Your task to perform on an android device: Search for "apple airpods pro" on newegg.com, select the first entry, and add it to the cart. Image 0: 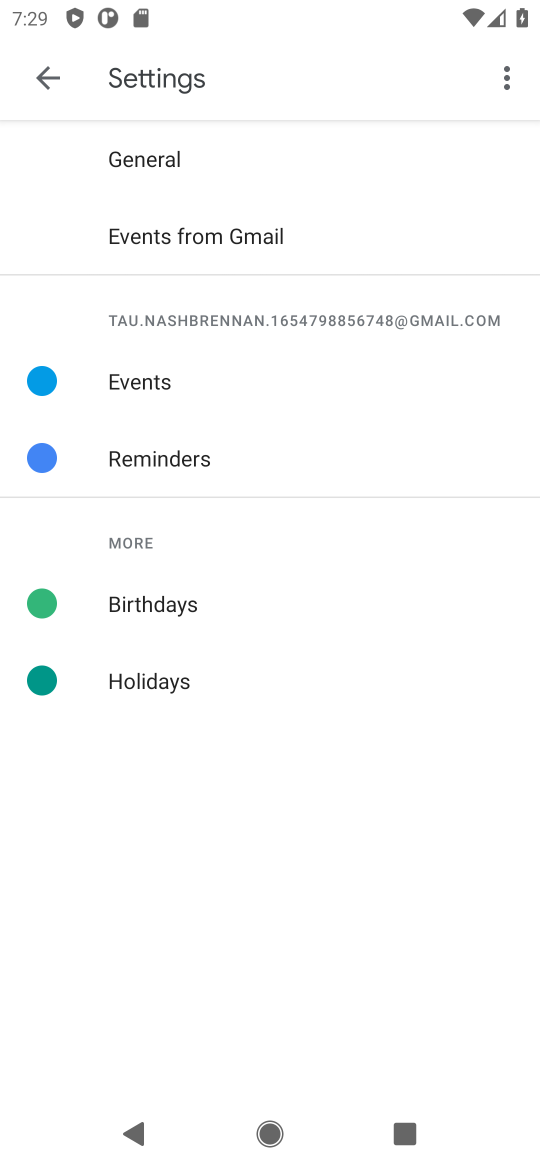
Step 0: press home button
Your task to perform on an android device: Search for "apple airpods pro" on newegg.com, select the first entry, and add it to the cart. Image 1: 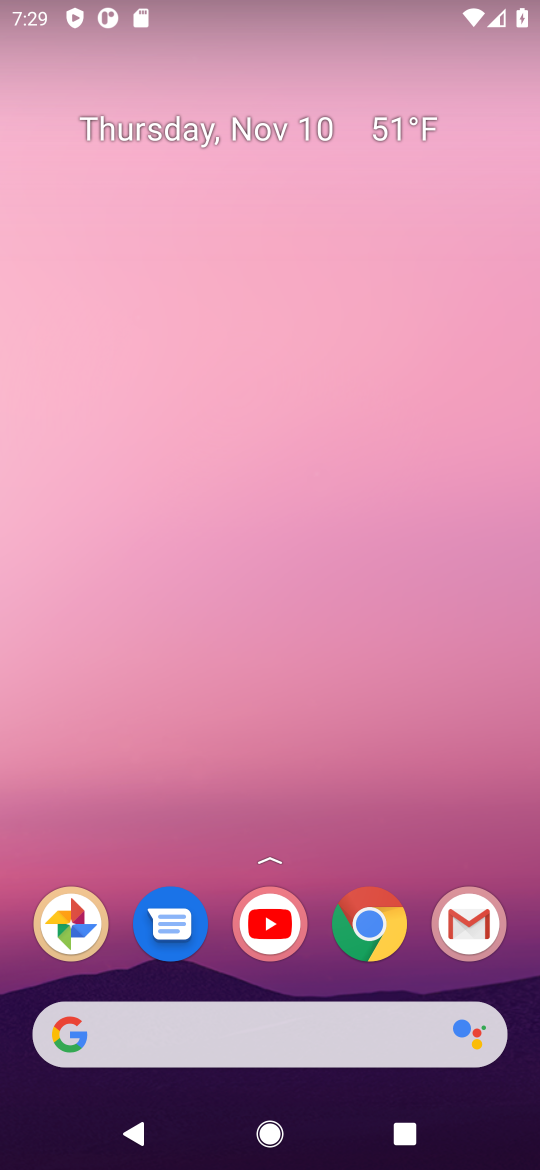
Step 1: click (368, 926)
Your task to perform on an android device: Search for "apple airpods pro" on newegg.com, select the first entry, and add it to the cart. Image 2: 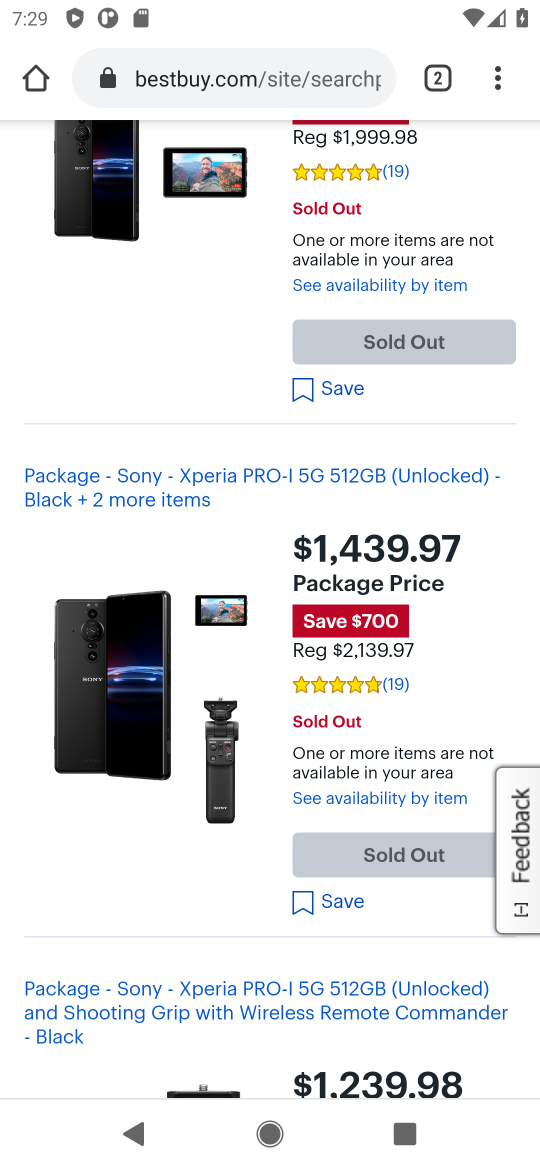
Step 2: click (191, 91)
Your task to perform on an android device: Search for "apple airpods pro" on newegg.com, select the first entry, and add it to the cart. Image 3: 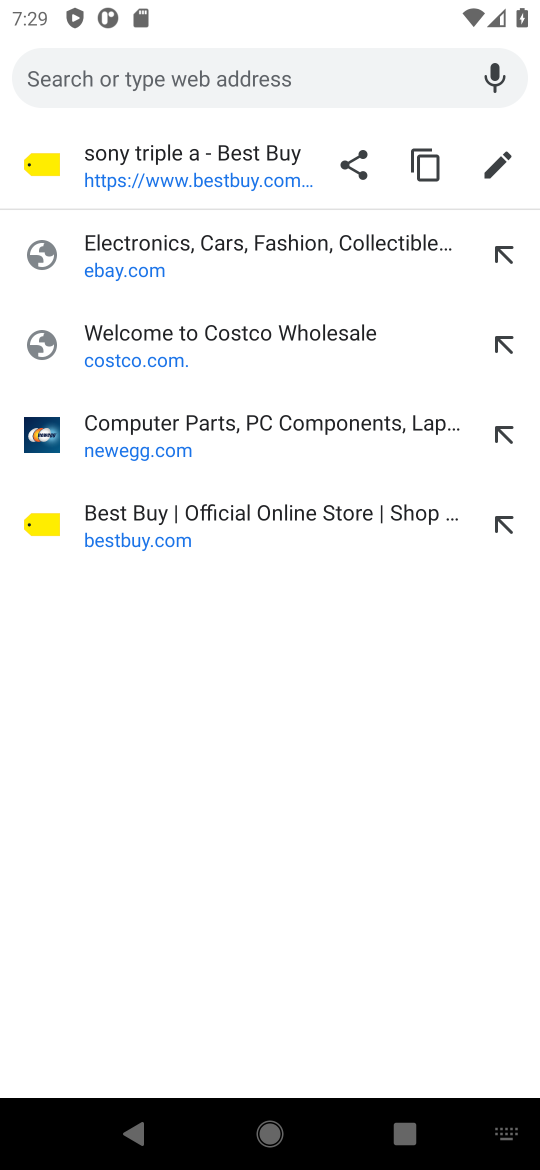
Step 3: click (123, 436)
Your task to perform on an android device: Search for "apple airpods pro" on newegg.com, select the first entry, and add it to the cart. Image 4: 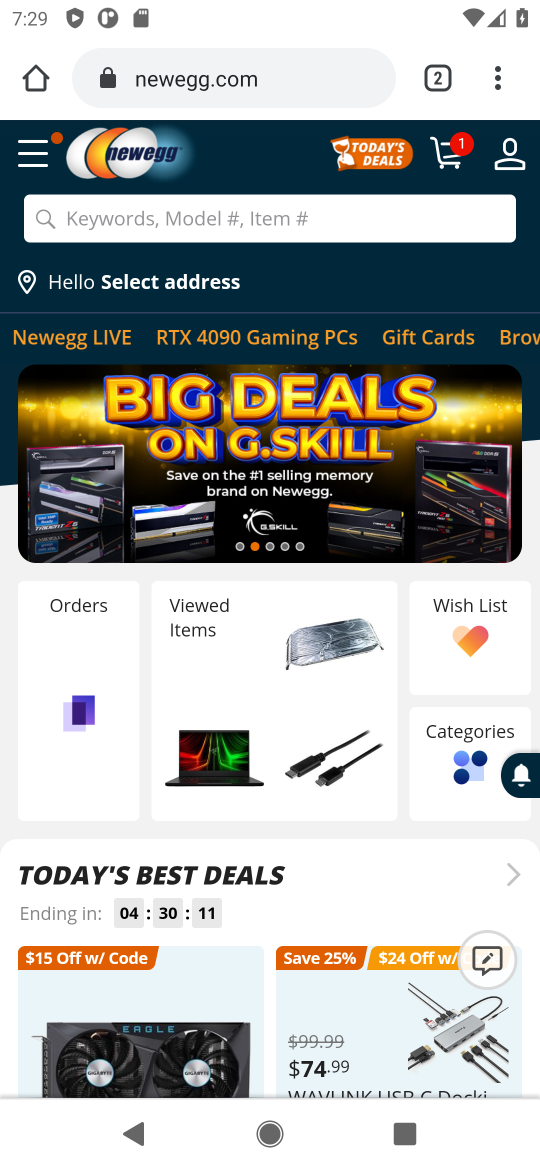
Step 4: click (122, 225)
Your task to perform on an android device: Search for "apple airpods pro" on newegg.com, select the first entry, and add it to the cart. Image 5: 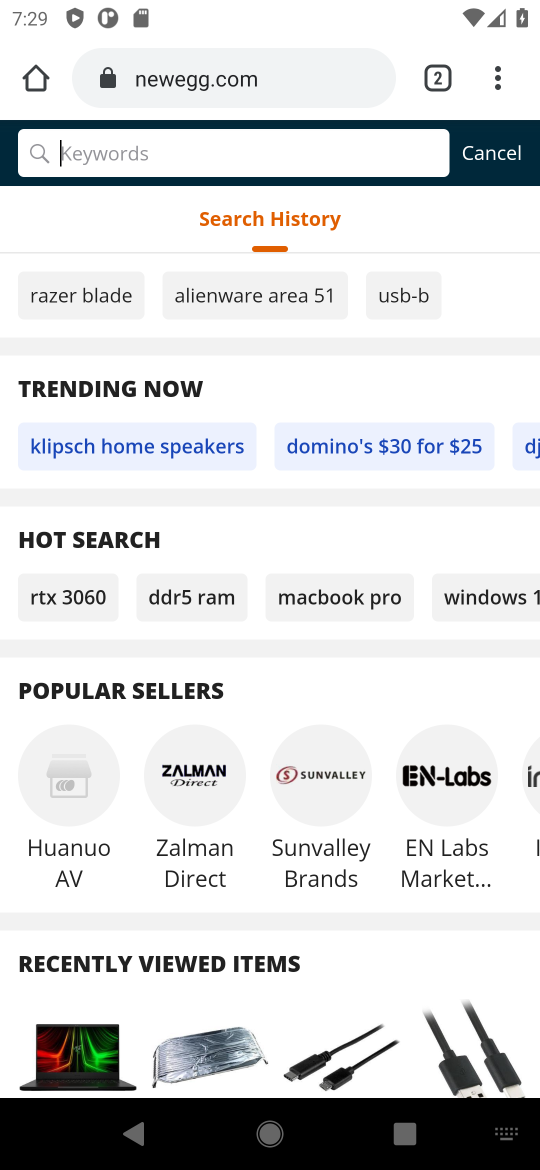
Step 5: type "apple airpods pro"
Your task to perform on an android device: Search for "apple airpods pro" on newegg.com, select the first entry, and add it to the cart. Image 6: 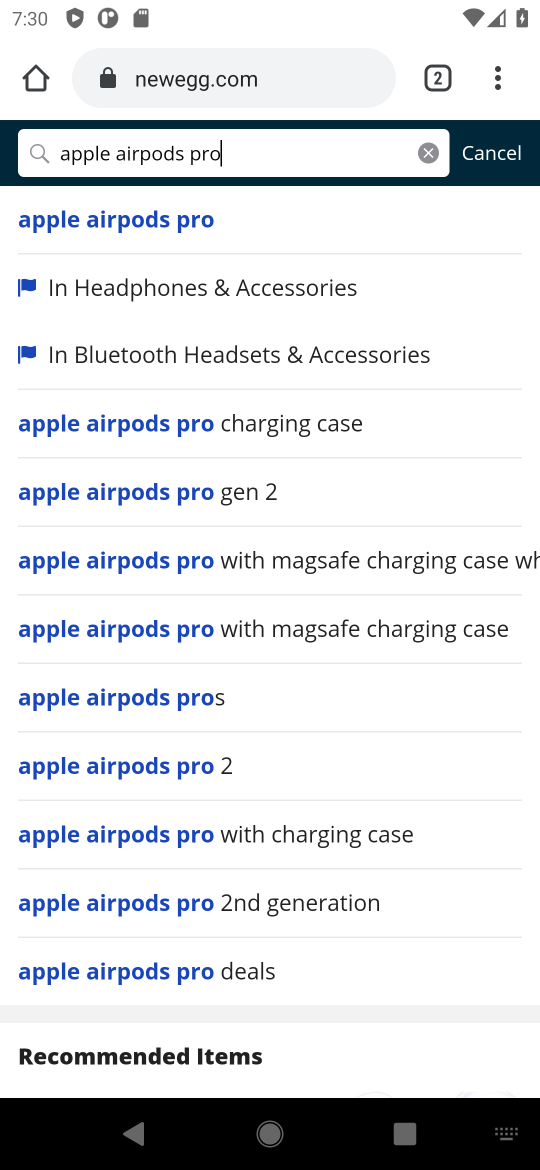
Step 6: click (163, 233)
Your task to perform on an android device: Search for "apple airpods pro" on newegg.com, select the first entry, and add it to the cart. Image 7: 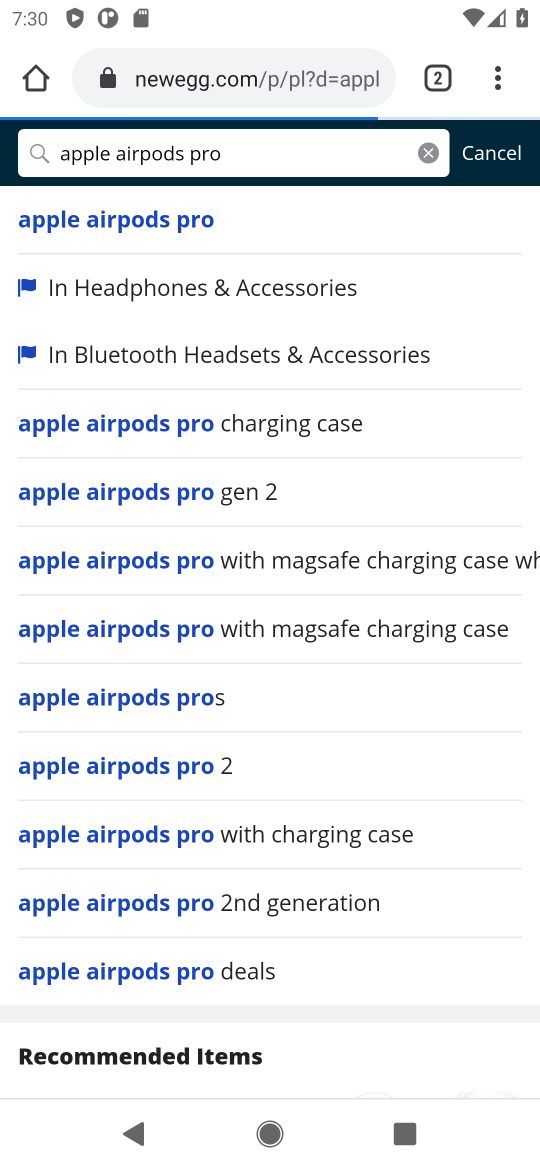
Step 7: click (131, 222)
Your task to perform on an android device: Search for "apple airpods pro" on newegg.com, select the first entry, and add it to the cart. Image 8: 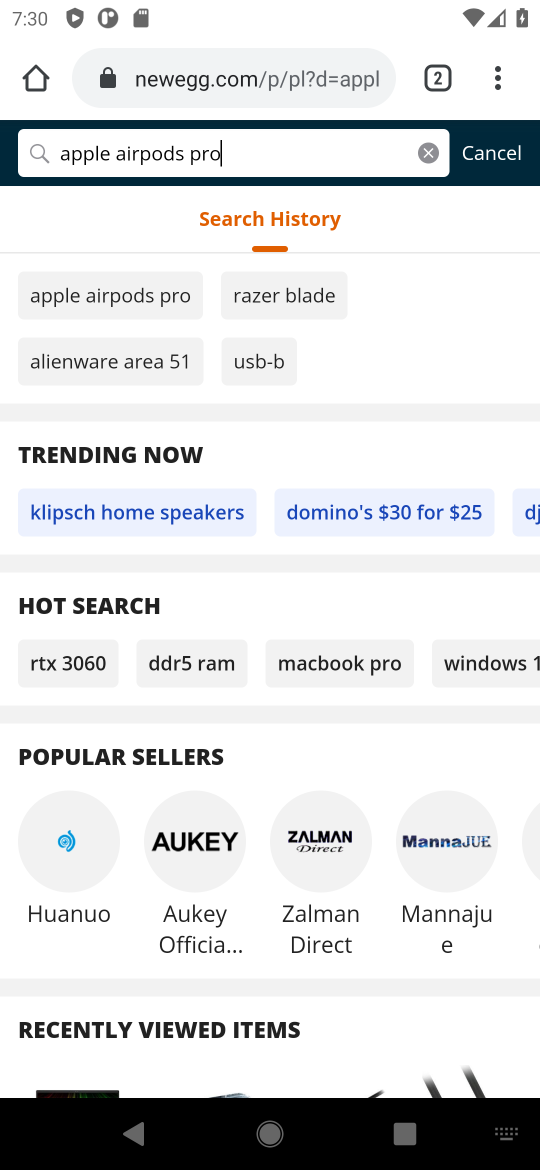
Step 8: click (67, 299)
Your task to perform on an android device: Search for "apple airpods pro" on newegg.com, select the first entry, and add it to the cart. Image 9: 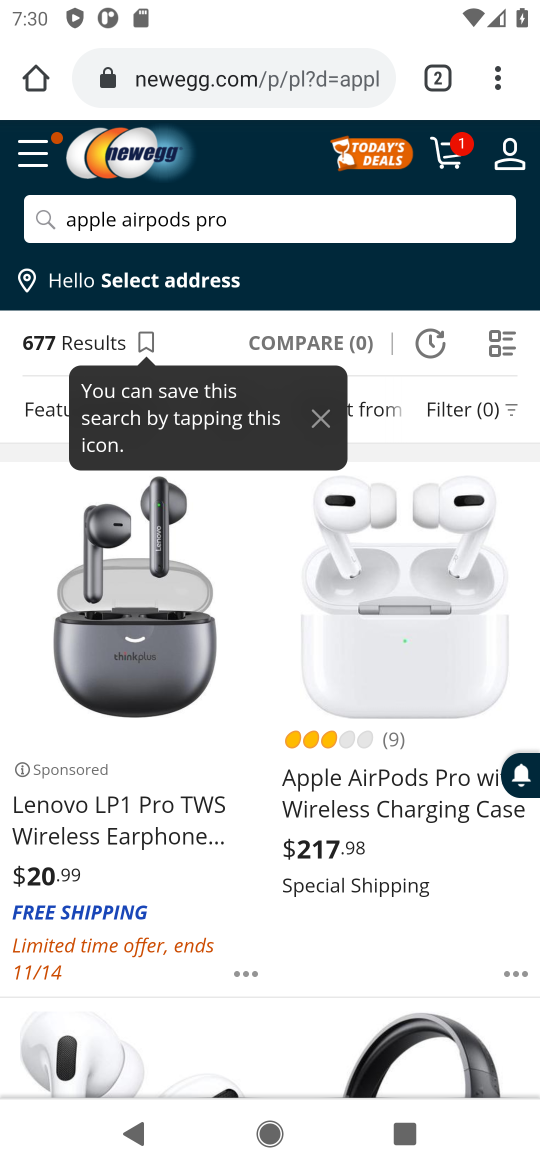
Step 9: task complete